Your task to perform on an android device: Open my contact list Image 0: 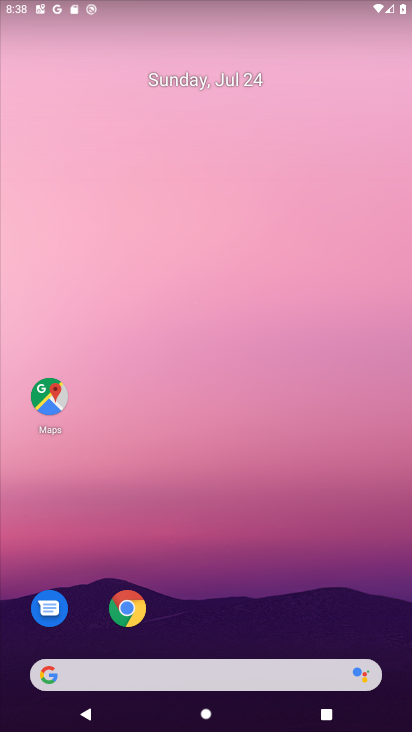
Step 0: drag from (245, 635) to (260, 98)
Your task to perform on an android device: Open my contact list Image 1: 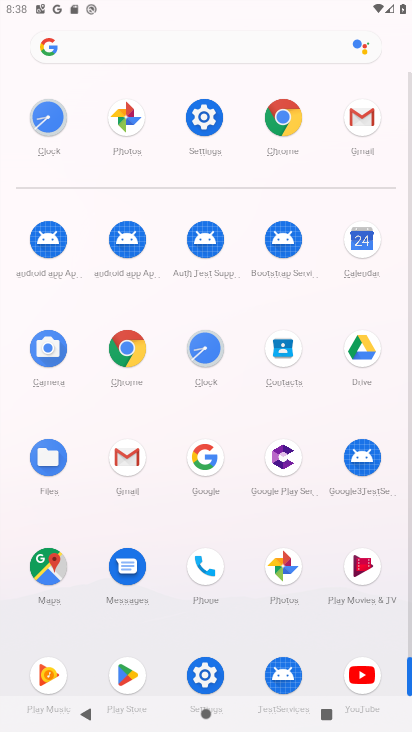
Step 1: click (285, 344)
Your task to perform on an android device: Open my contact list Image 2: 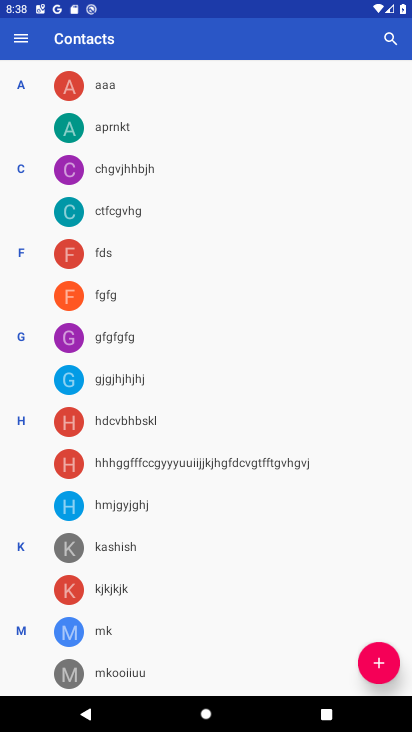
Step 2: task complete